Your task to perform on an android device: Go to eBay Image 0: 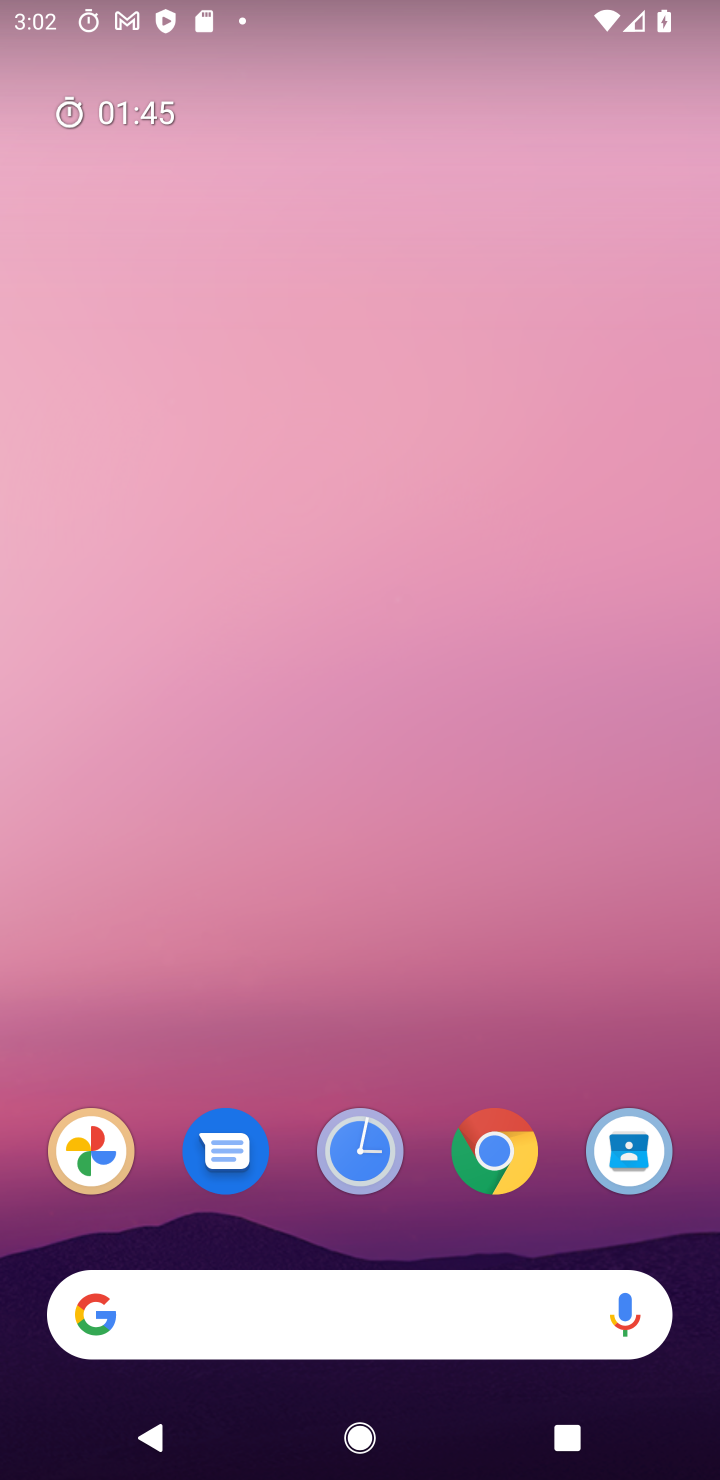
Step 0: press home button
Your task to perform on an android device: Go to eBay Image 1: 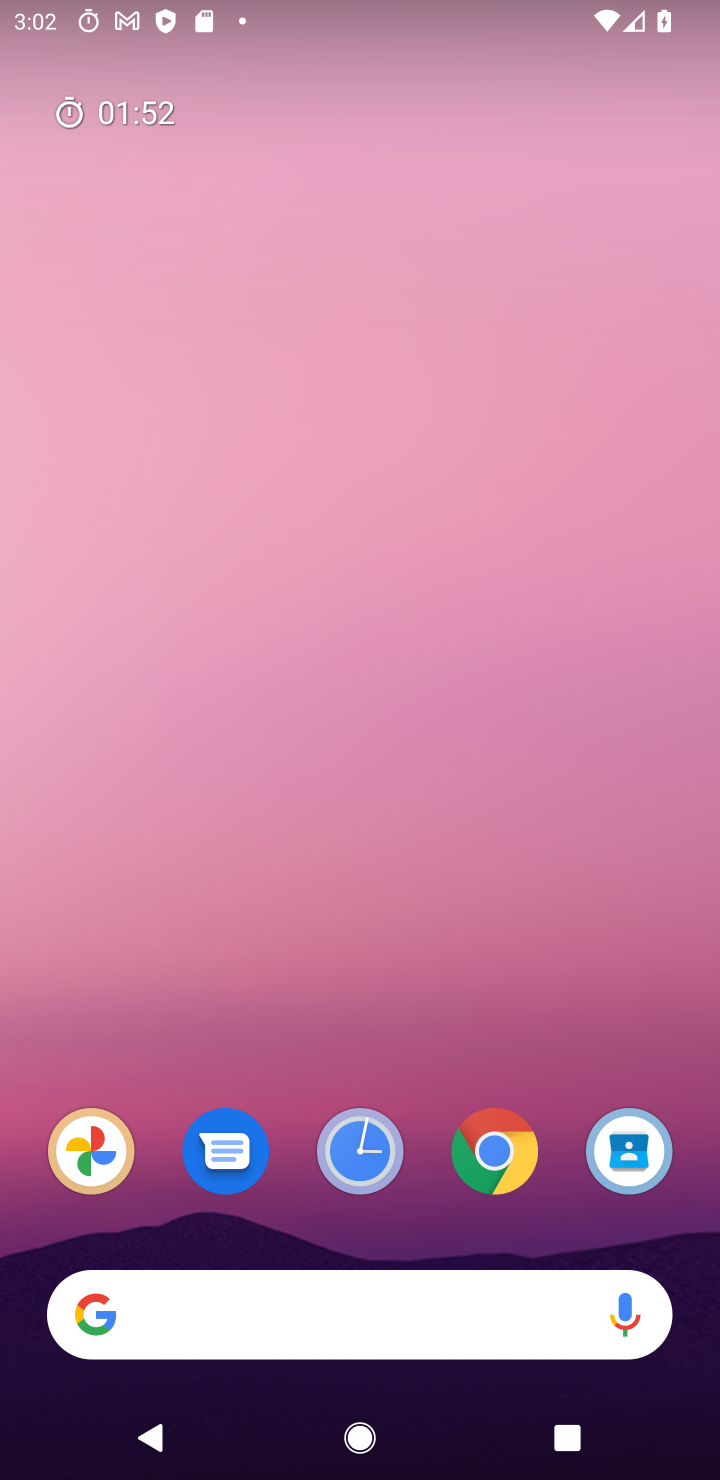
Step 1: click (517, 1177)
Your task to perform on an android device: Go to eBay Image 2: 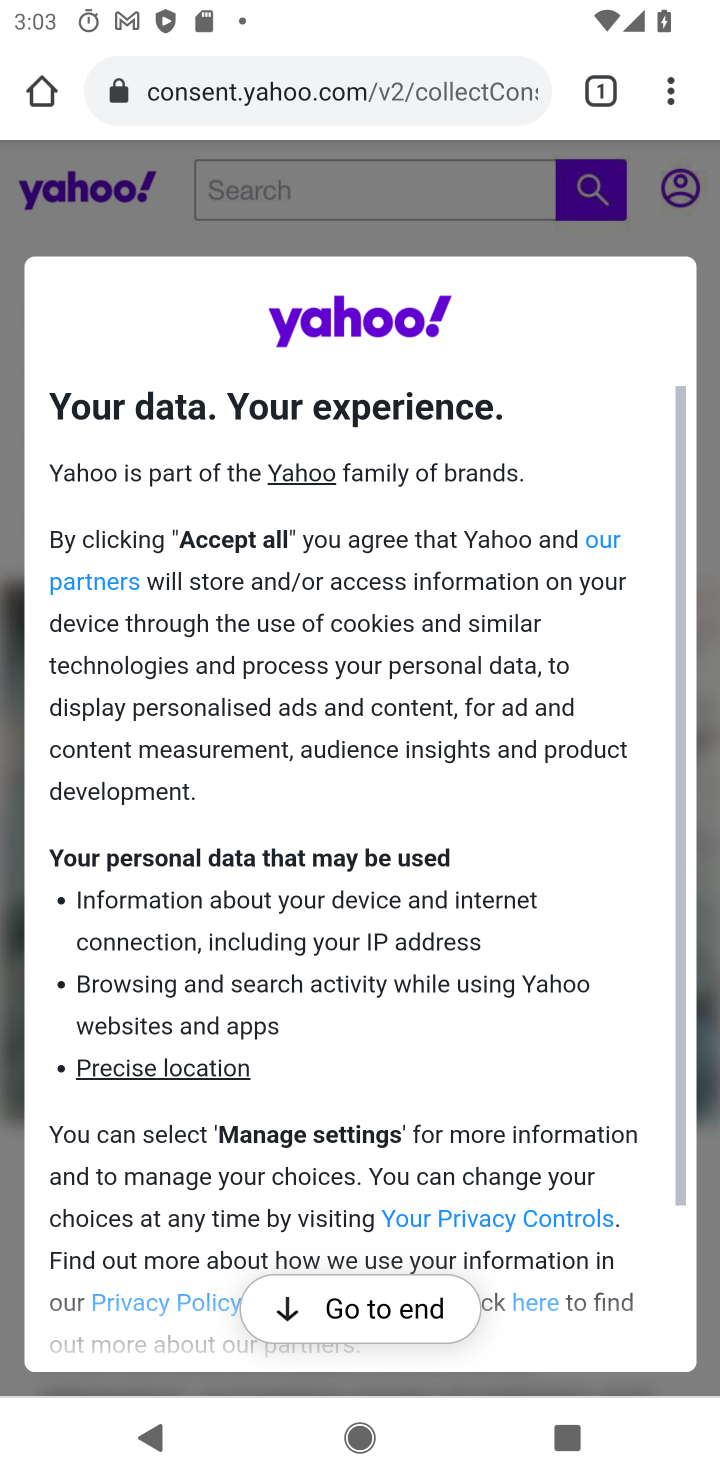
Step 2: click (410, 87)
Your task to perform on an android device: Go to eBay Image 3: 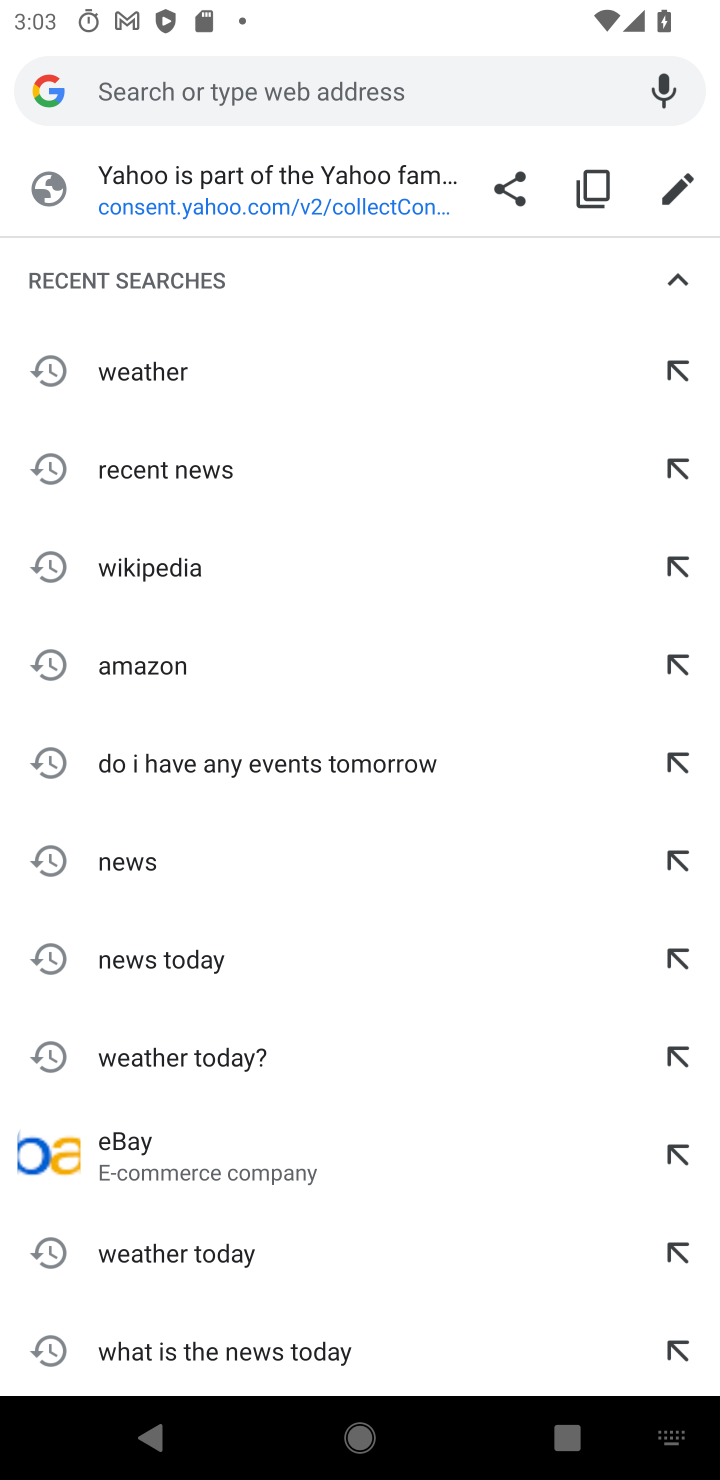
Step 3: type "eBay"
Your task to perform on an android device: Go to eBay Image 4: 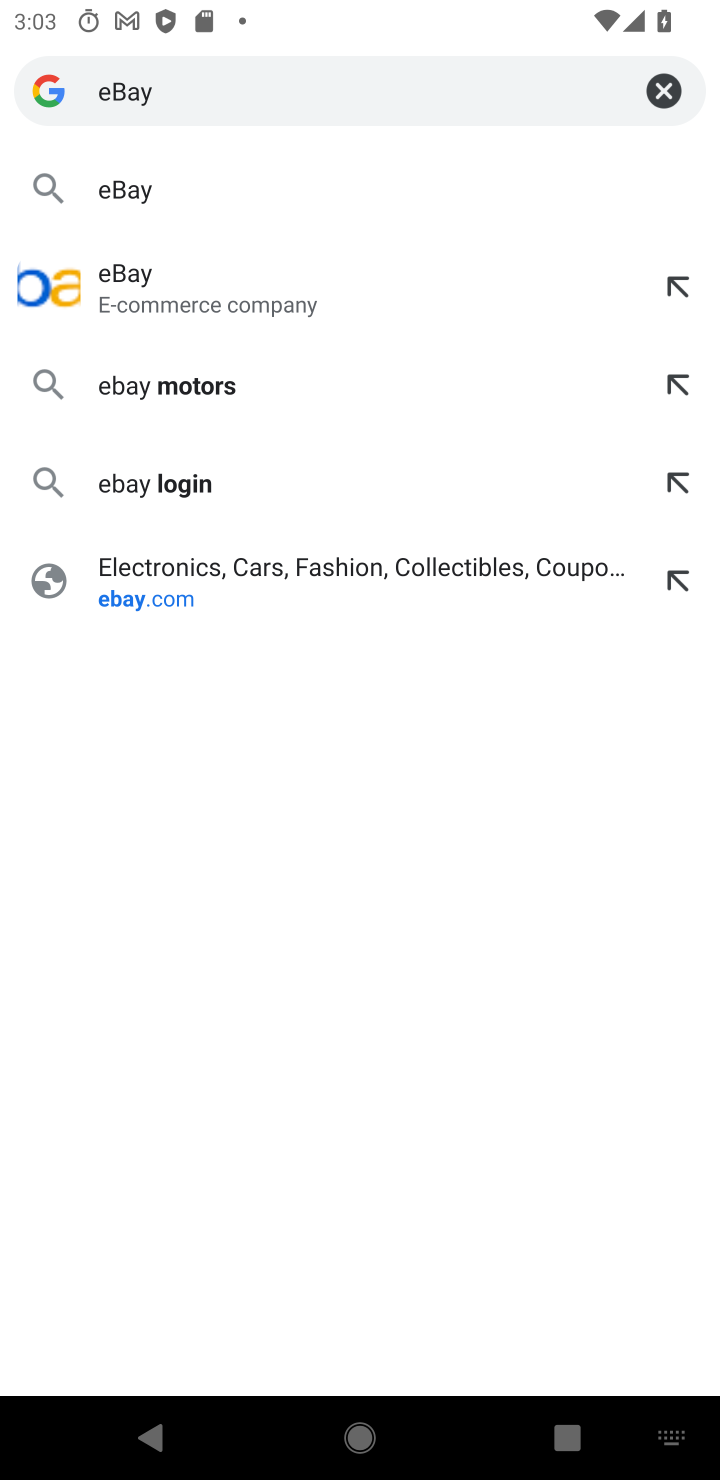
Step 4: click (135, 185)
Your task to perform on an android device: Go to eBay Image 5: 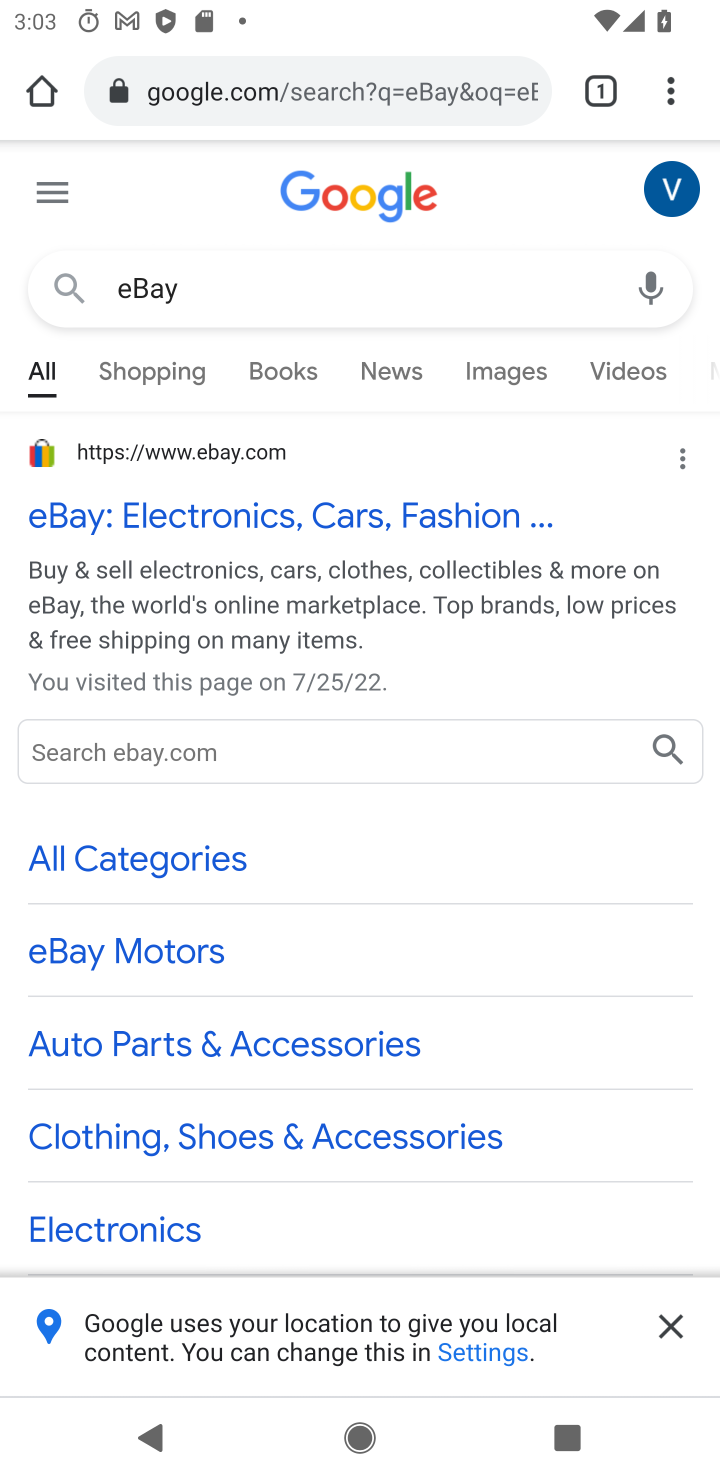
Step 5: click (346, 506)
Your task to perform on an android device: Go to eBay Image 6: 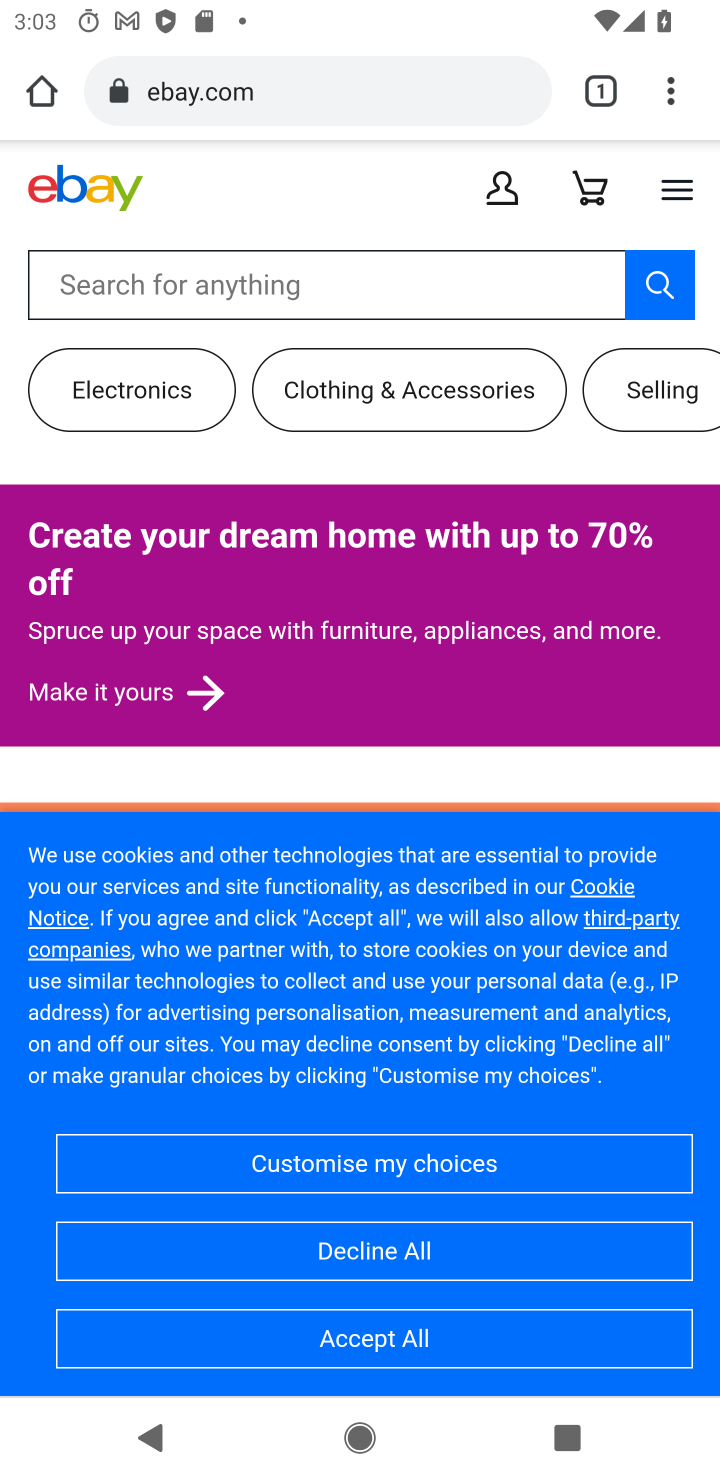
Step 6: task complete